Your task to perform on an android device: move an email to a new category in the gmail app Image 0: 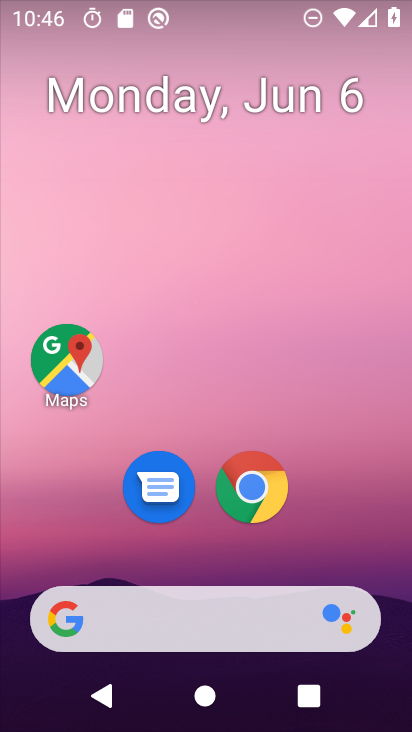
Step 0: drag from (397, 641) to (299, 15)
Your task to perform on an android device: move an email to a new category in the gmail app Image 1: 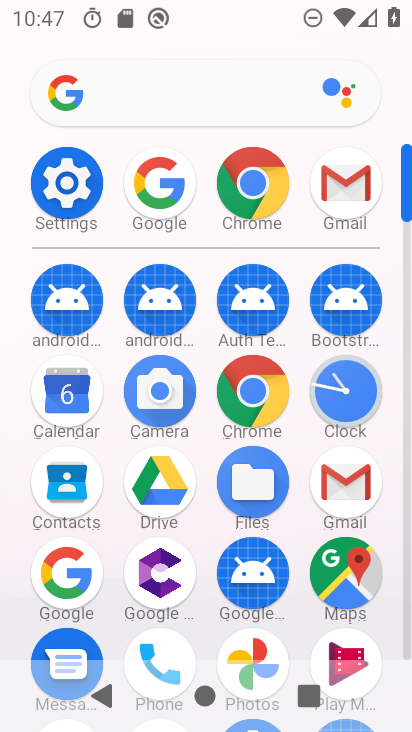
Step 1: click (339, 473)
Your task to perform on an android device: move an email to a new category in the gmail app Image 2: 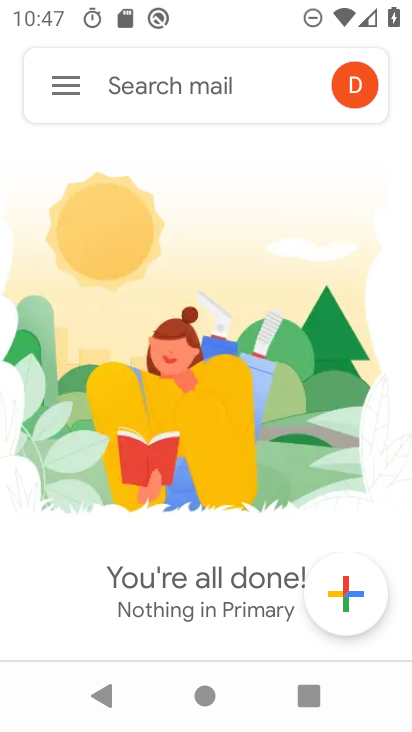
Step 2: task complete